Your task to perform on an android device: Go to network settings Image 0: 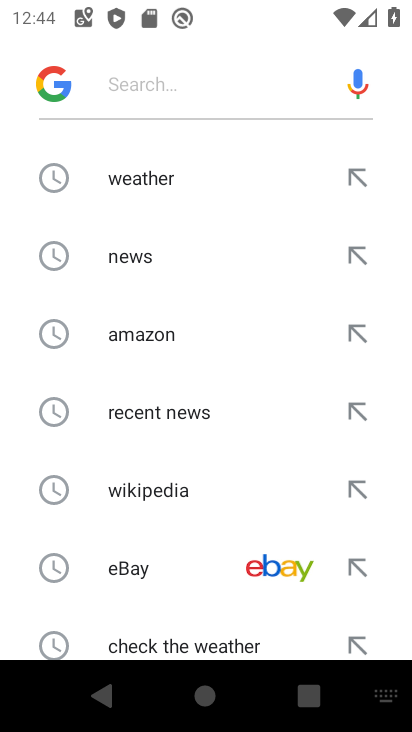
Step 0: press back button
Your task to perform on an android device: Go to network settings Image 1: 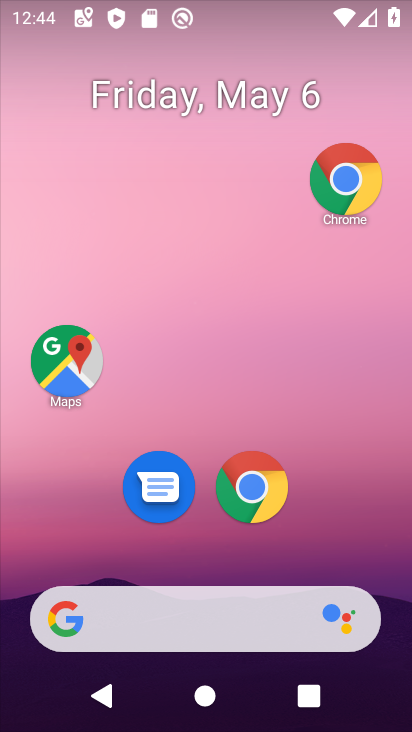
Step 1: drag from (314, 513) to (304, 170)
Your task to perform on an android device: Go to network settings Image 2: 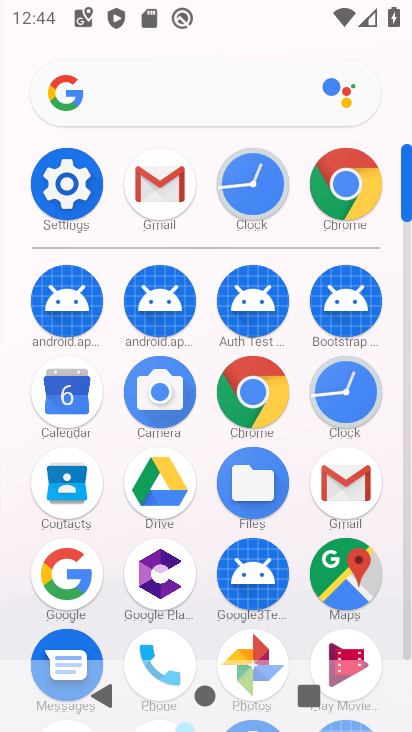
Step 2: click (90, 188)
Your task to perform on an android device: Go to network settings Image 3: 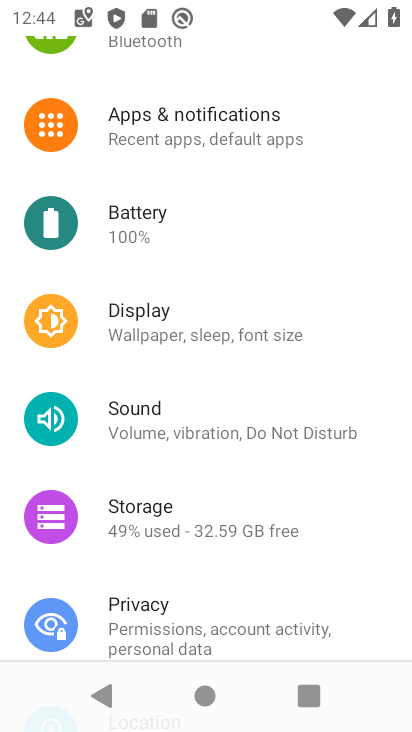
Step 3: drag from (185, 188) to (303, 367)
Your task to perform on an android device: Go to network settings Image 4: 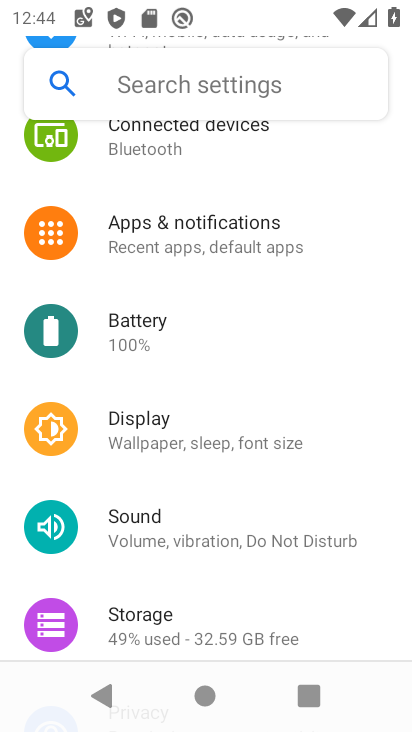
Step 4: drag from (240, 196) to (250, 530)
Your task to perform on an android device: Go to network settings Image 5: 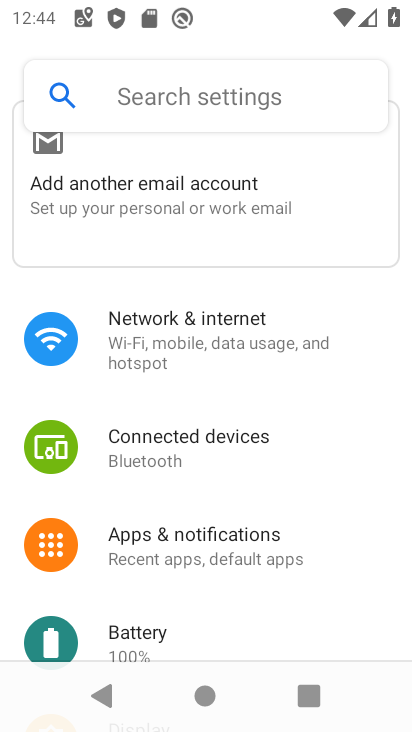
Step 5: click (236, 344)
Your task to perform on an android device: Go to network settings Image 6: 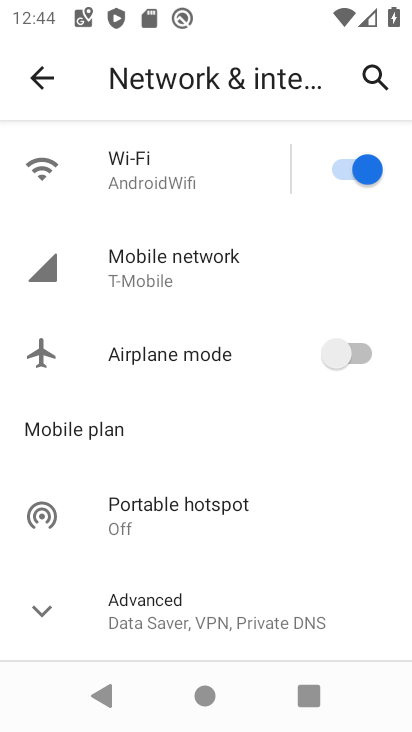
Step 6: task complete